Your task to perform on an android device: Go to settings Image 0: 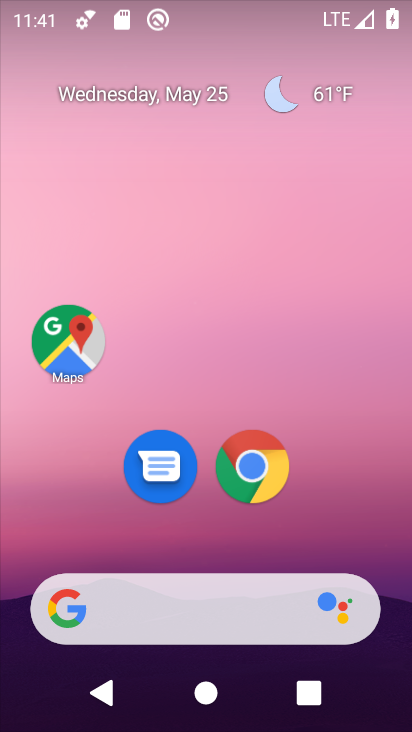
Step 0: drag from (218, 522) to (296, 46)
Your task to perform on an android device: Go to settings Image 1: 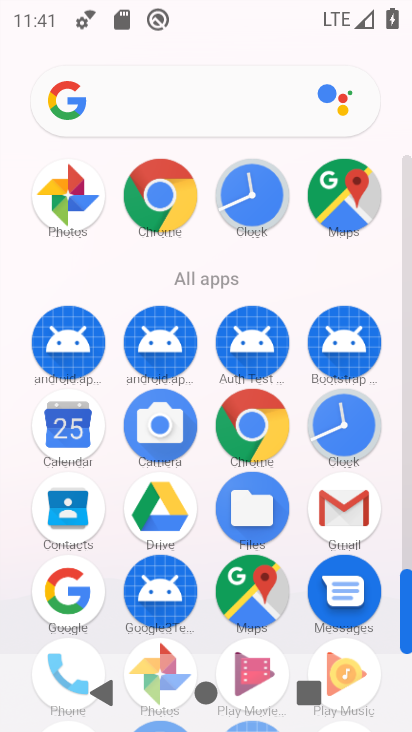
Step 1: drag from (198, 489) to (213, 224)
Your task to perform on an android device: Go to settings Image 2: 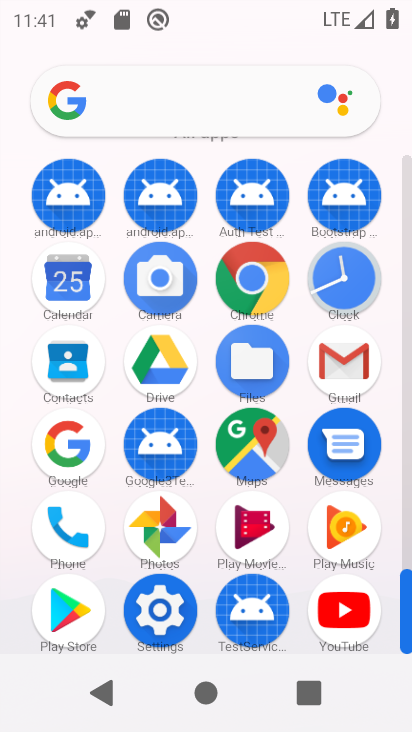
Step 2: click (150, 605)
Your task to perform on an android device: Go to settings Image 3: 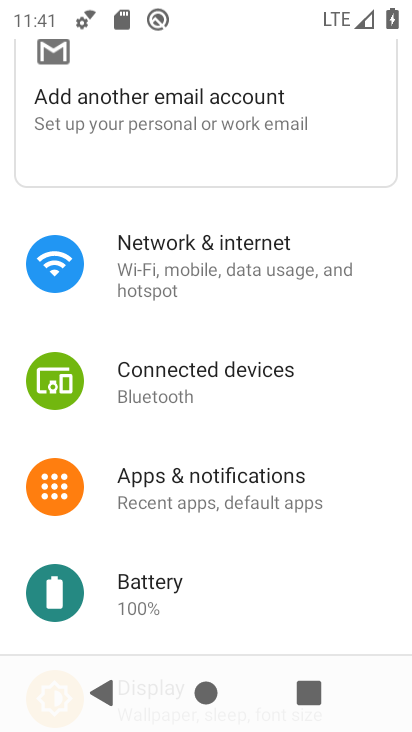
Step 3: task complete